Your task to perform on an android device: toggle notification dots Image 0: 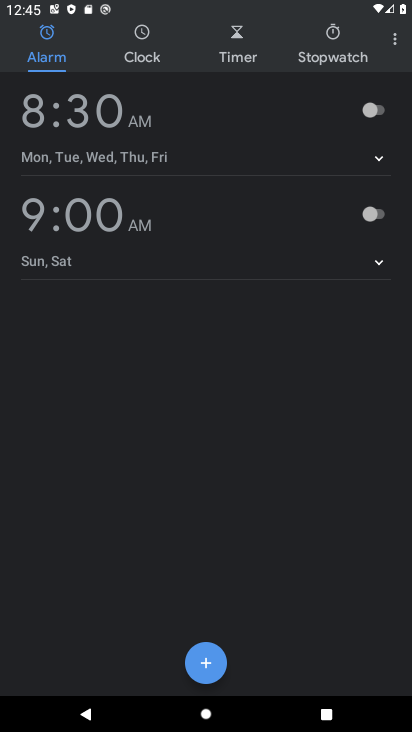
Step 0: press home button
Your task to perform on an android device: toggle notification dots Image 1: 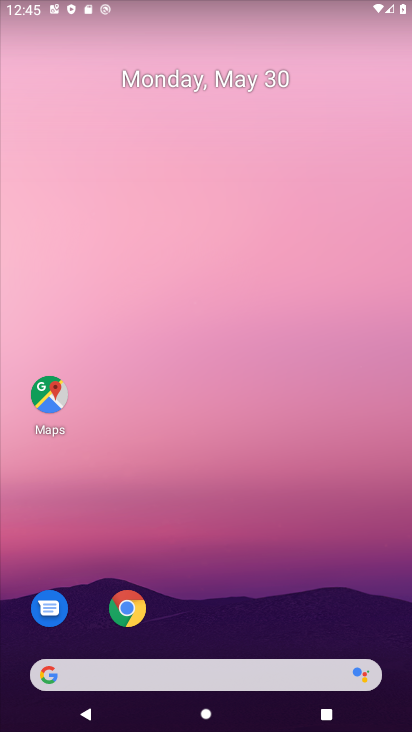
Step 1: drag from (225, 505) to (204, 76)
Your task to perform on an android device: toggle notification dots Image 2: 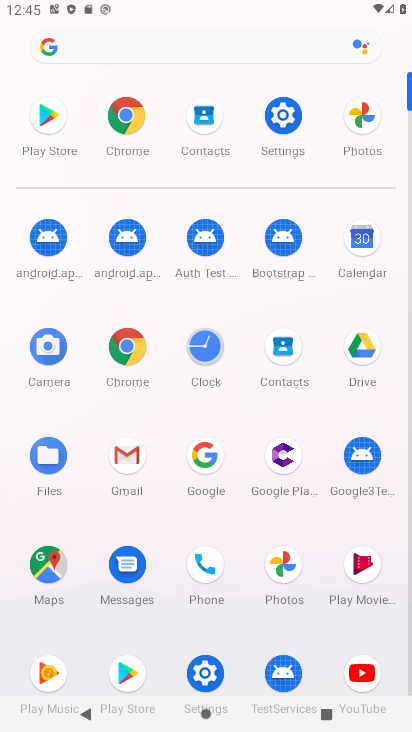
Step 2: click (292, 124)
Your task to perform on an android device: toggle notification dots Image 3: 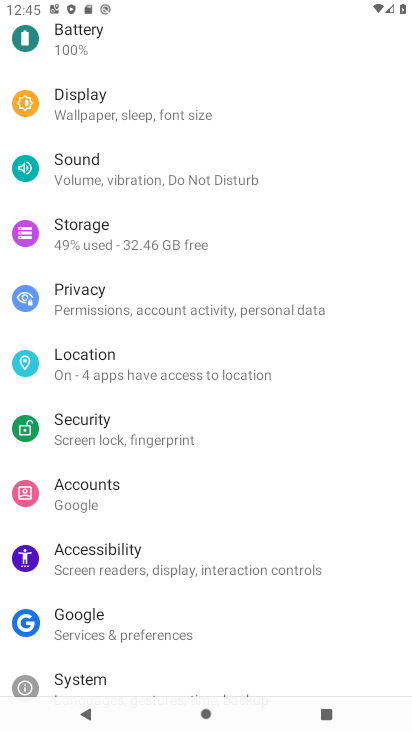
Step 3: drag from (242, 108) to (241, 611)
Your task to perform on an android device: toggle notification dots Image 4: 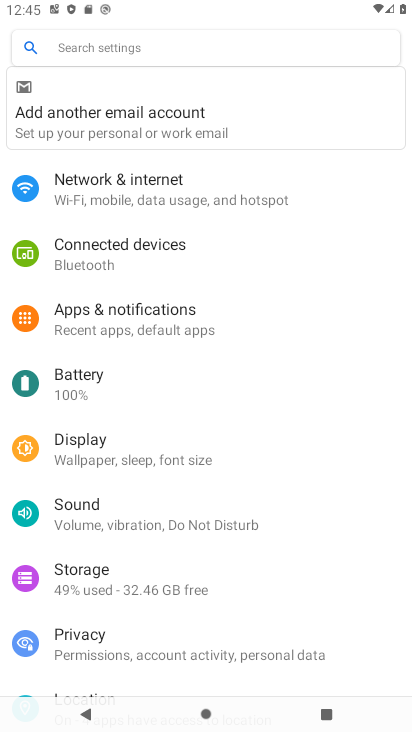
Step 4: click (258, 304)
Your task to perform on an android device: toggle notification dots Image 5: 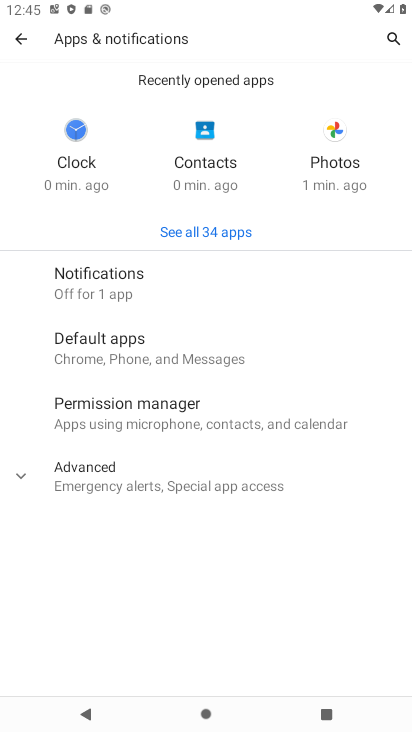
Step 5: click (227, 287)
Your task to perform on an android device: toggle notification dots Image 6: 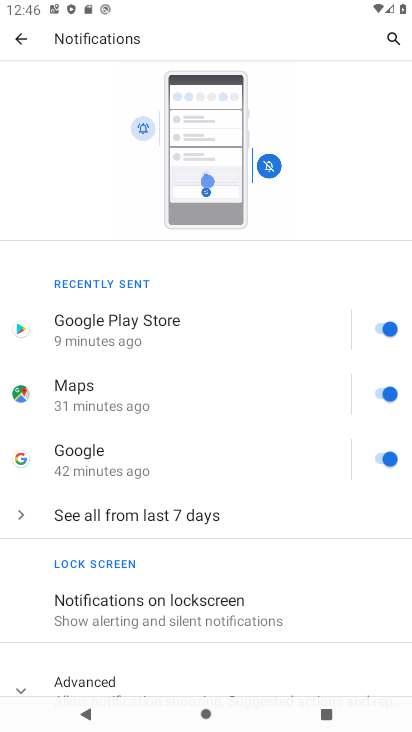
Step 6: click (239, 595)
Your task to perform on an android device: toggle notification dots Image 7: 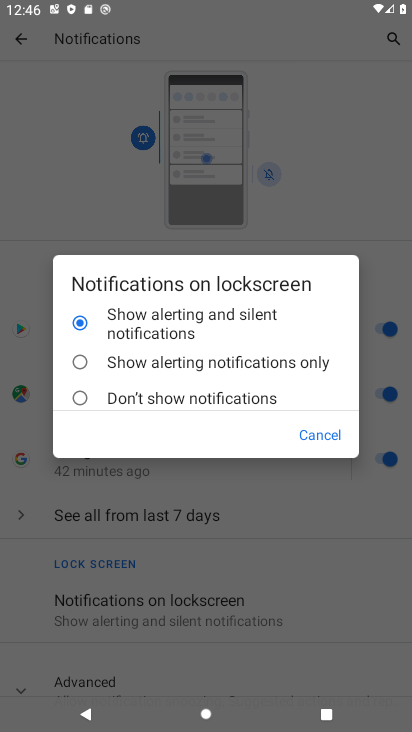
Step 7: click (308, 430)
Your task to perform on an android device: toggle notification dots Image 8: 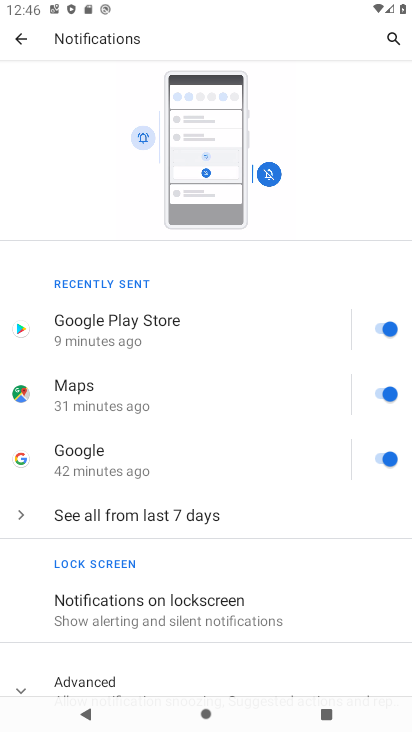
Step 8: drag from (280, 638) to (250, 104)
Your task to perform on an android device: toggle notification dots Image 9: 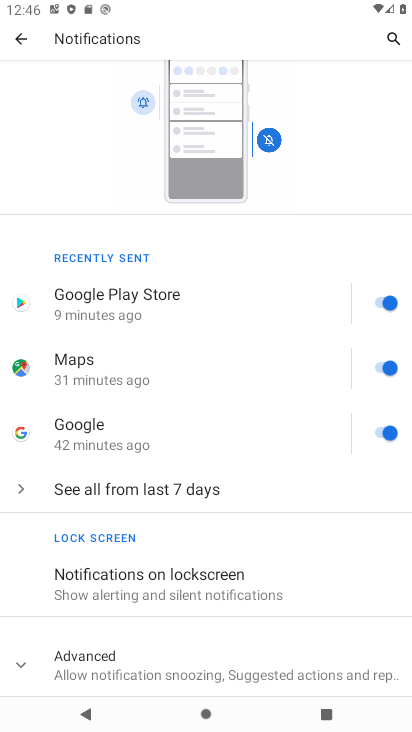
Step 9: click (149, 666)
Your task to perform on an android device: toggle notification dots Image 10: 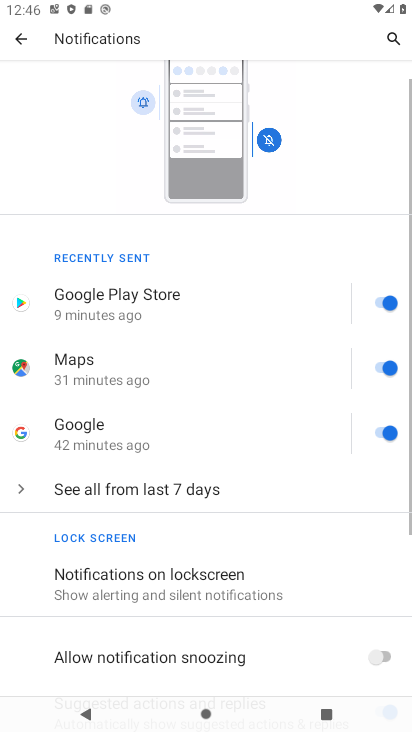
Step 10: drag from (152, 645) to (167, 124)
Your task to perform on an android device: toggle notification dots Image 11: 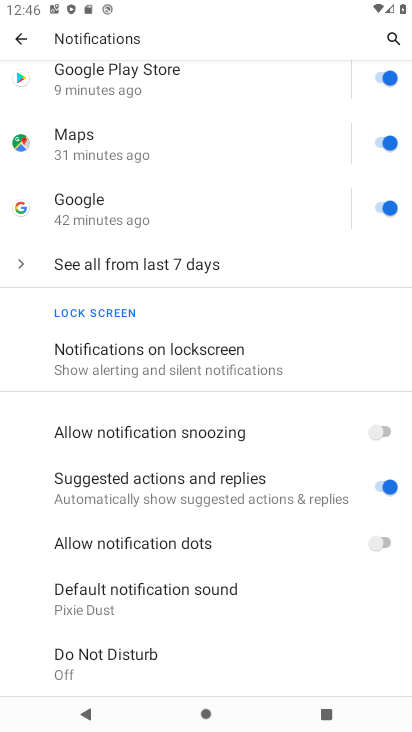
Step 11: click (200, 526)
Your task to perform on an android device: toggle notification dots Image 12: 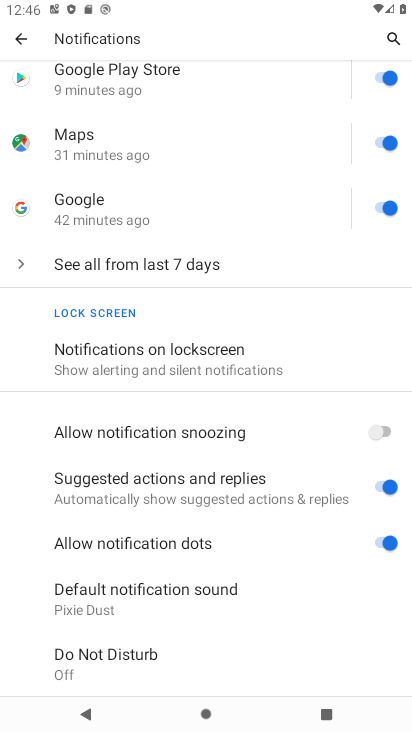
Step 12: task complete